Your task to perform on an android device: What's the weather today? Image 0: 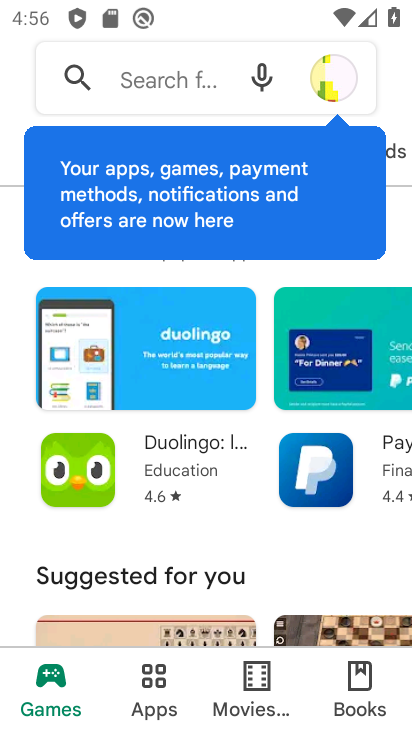
Step 0: press home button
Your task to perform on an android device: What's the weather today? Image 1: 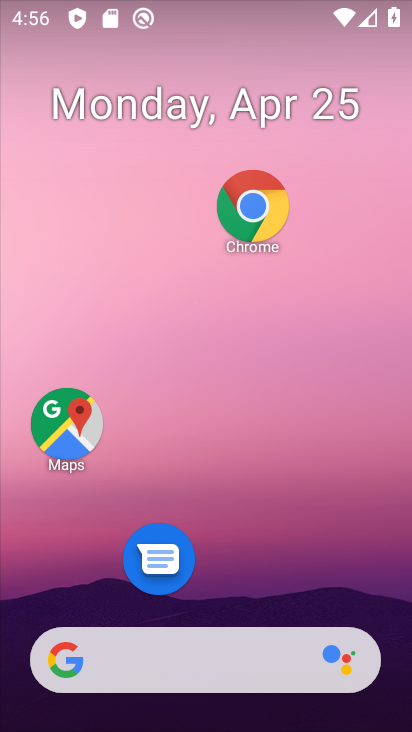
Step 1: drag from (225, 527) to (162, 83)
Your task to perform on an android device: What's the weather today? Image 2: 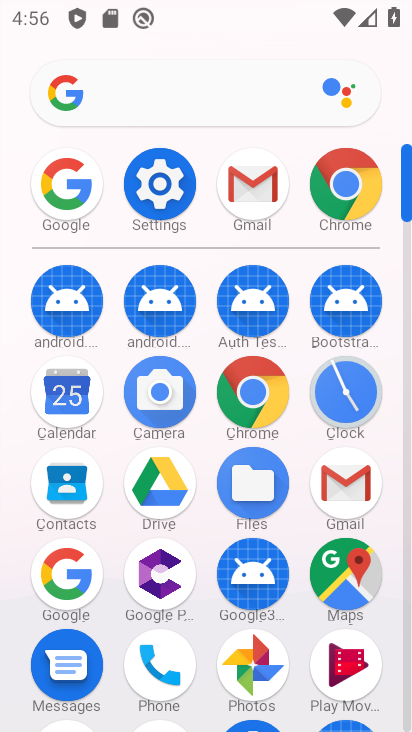
Step 2: click (63, 185)
Your task to perform on an android device: What's the weather today? Image 3: 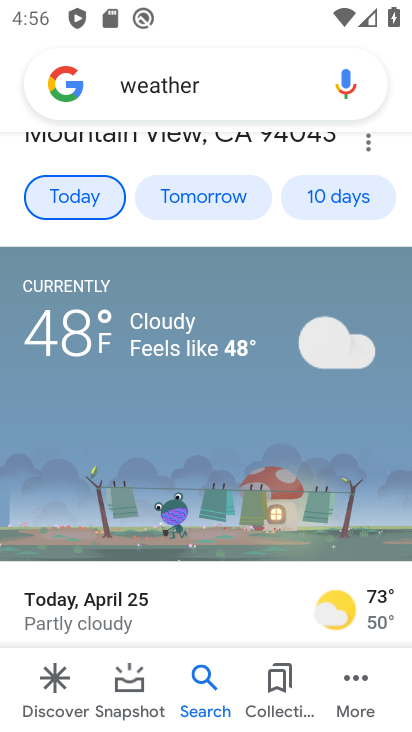
Step 3: task complete